Your task to perform on an android device: turn off javascript in the chrome app Image 0: 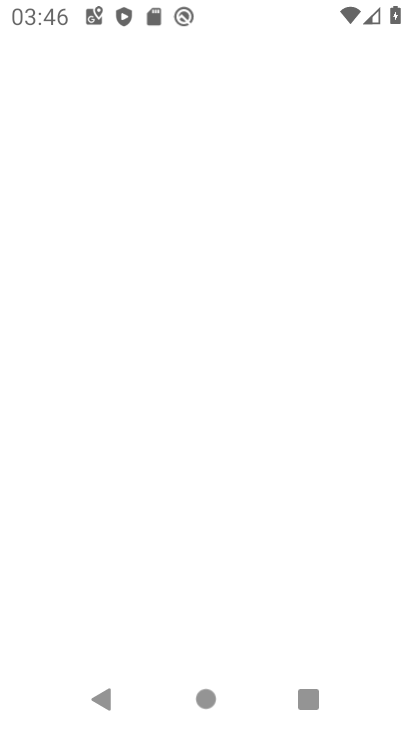
Step 0: drag from (264, 471) to (229, 35)
Your task to perform on an android device: turn off javascript in the chrome app Image 1: 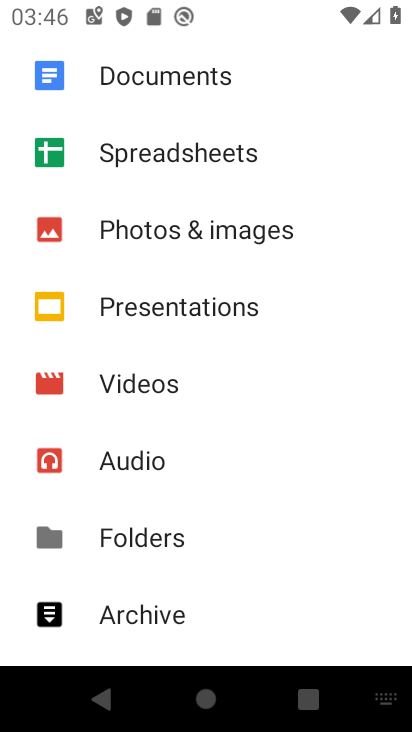
Step 1: press home button
Your task to perform on an android device: turn off javascript in the chrome app Image 2: 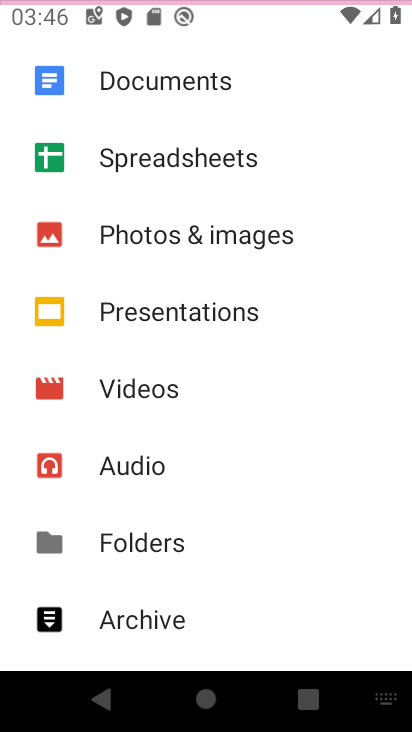
Step 2: drag from (229, 35) to (305, 338)
Your task to perform on an android device: turn off javascript in the chrome app Image 3: 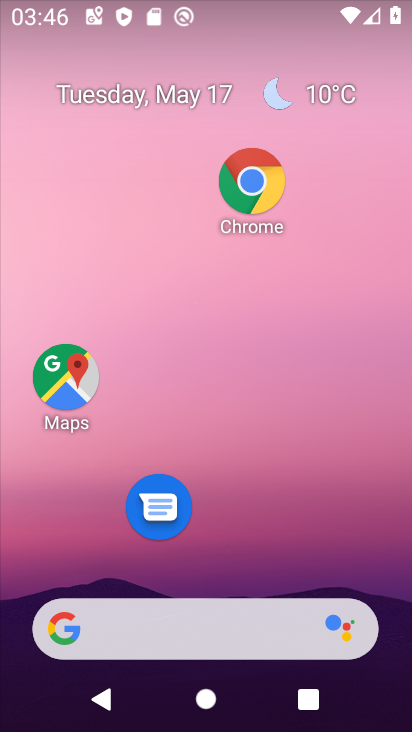
Step 3: drag from (186, 558) to (142, 180)
Your task to perform on an android device: turn off javascript in the chrome app Image 4: 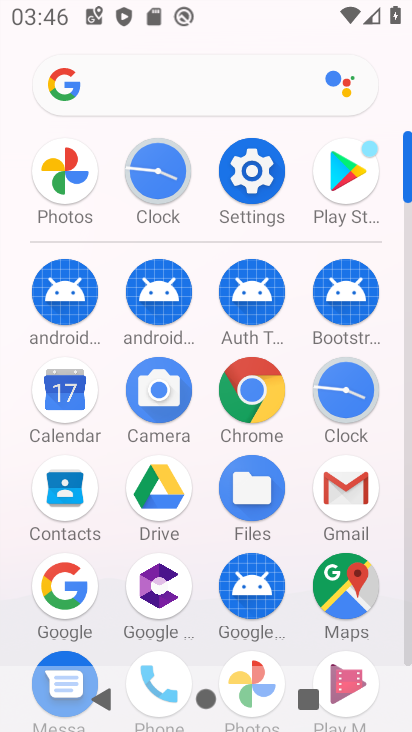
Step 4: click (257, 407)
Your task to perform on an android device: turn off javascript in the chrome app Image 5: 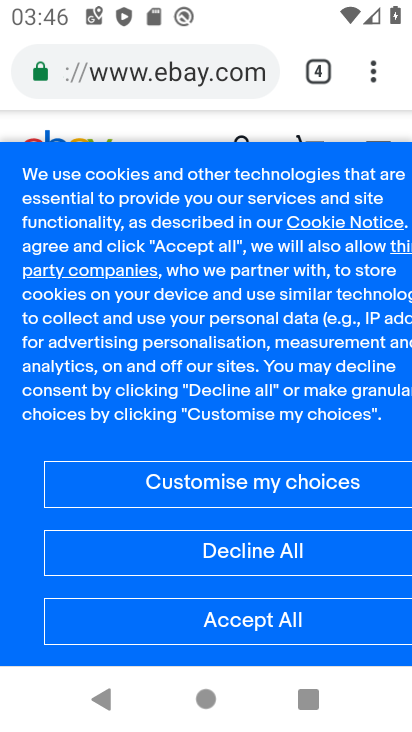
Step 5: click (388, 65)
Your task to perform on an android device: turn off javascript in the chrome app Image 6: 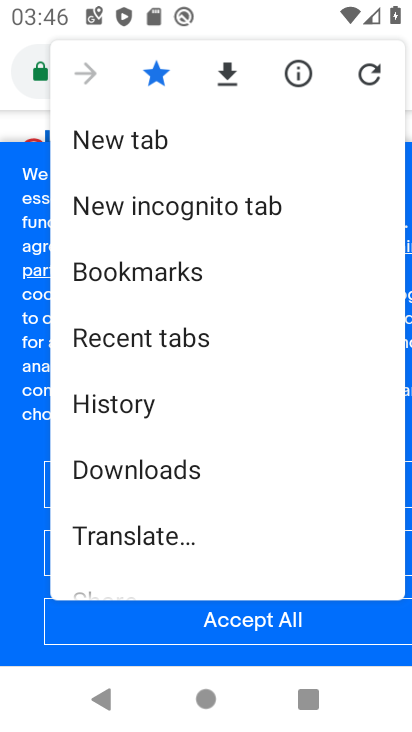
Step 6: drag from (147, 507) to (138, 282)
Your task to perform on an android device: turn off javascript in the chrome app Image 7: 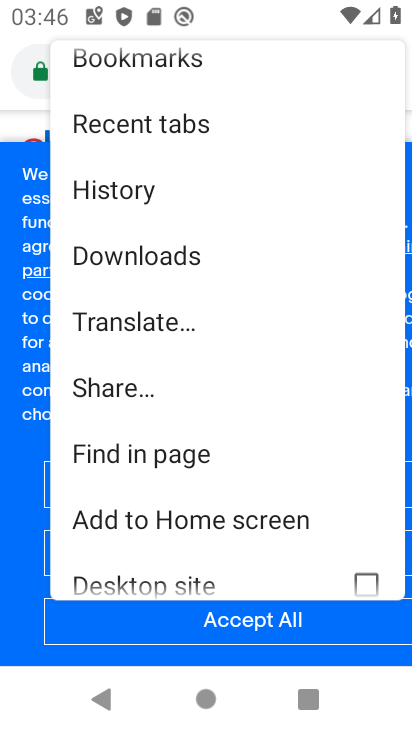
Step 7: drag from (149, 543) to (162, 131)
Your task to perform on an android device: turn off javascript in the chrome app Image 8: 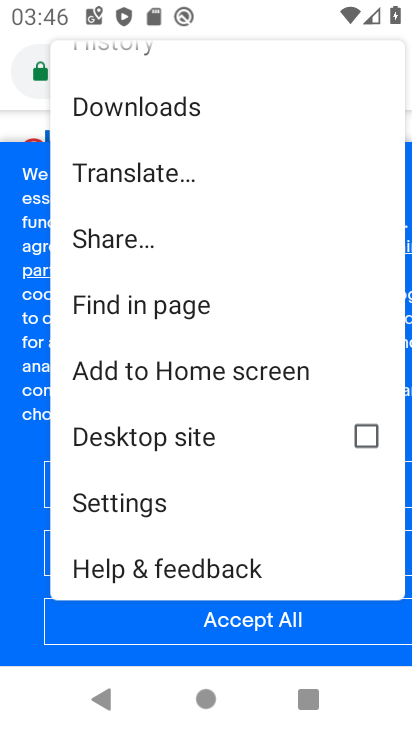
Step 8: click (94, 487)
Your task to perform on an android device: turn off javascript in the chrome app Image 9: 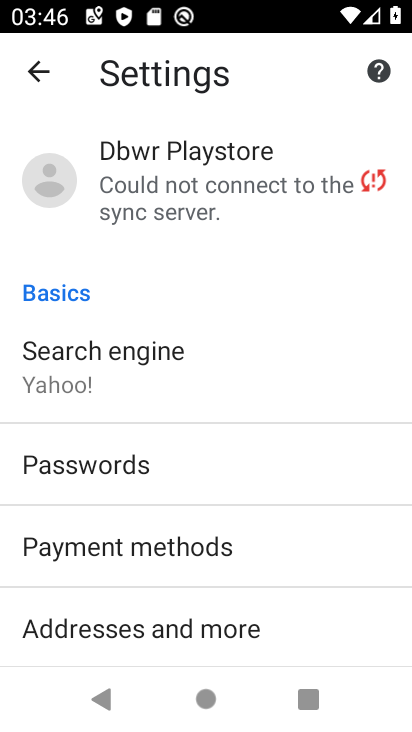
Step 9: drag from (94, 487) to (122, 229)
Your task to perform on an android device: turn off javascript in the chrome app Image 10: 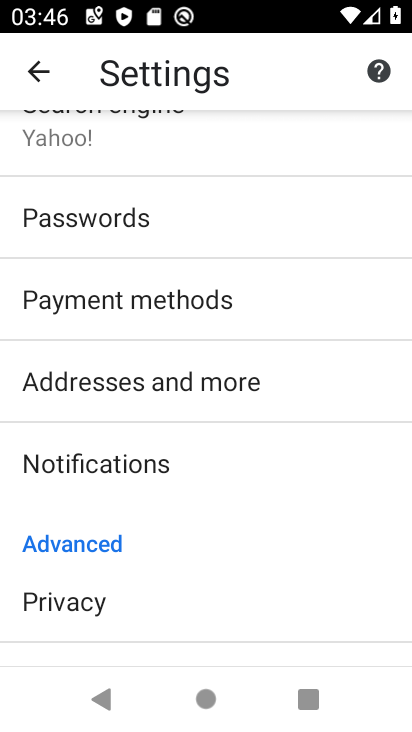
Step 10: drag from (171, 584) to (230, 168)
Your task to perform on an android device: turn off javascript in the chrome app Image 11: 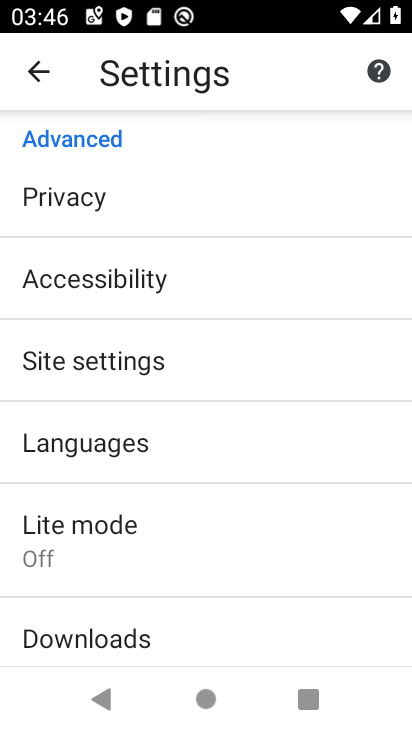
Step 11: click (76, 359)
Your task to perform on an android device: turn off javascript in the chrome app Image 12: 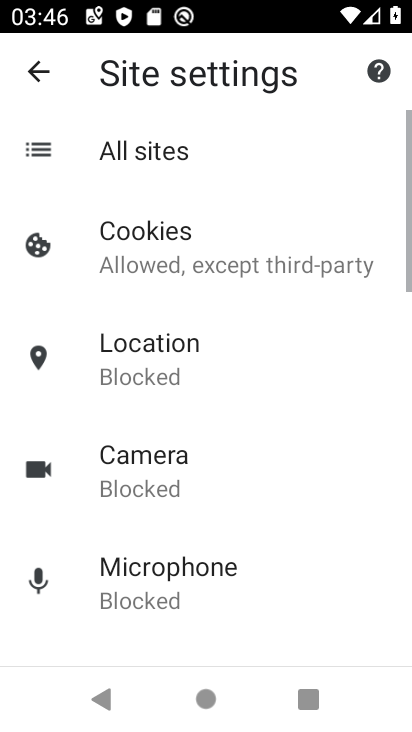
Step 12: drag from (177, 576) to (271, 91)
Your task to perform on an android device: turn off javascript in the chrome app Image 13: 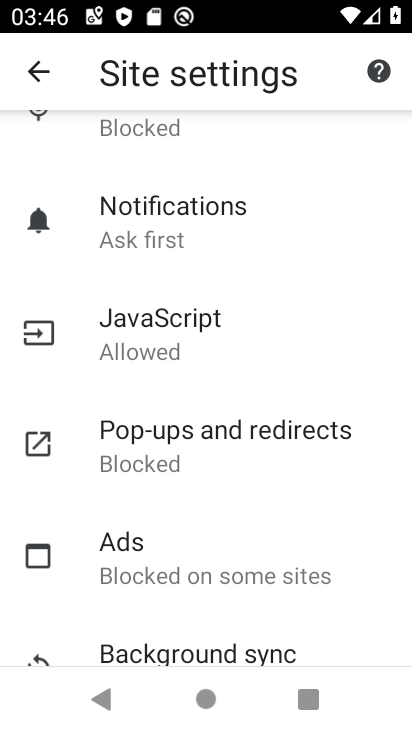
Step 13: click (161, 339)
Your task to perform on an android device: turn off javascript in the chrome app Image 14: 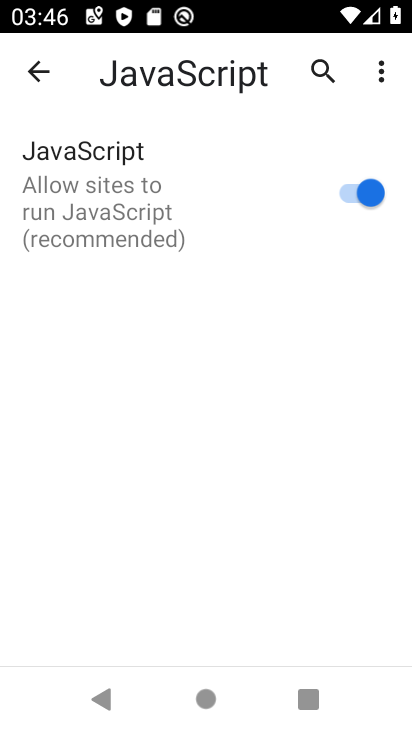
Step 14: click (372, 190)
Your task to perform on an android device: turn off javascript in the chrome app Image 15: 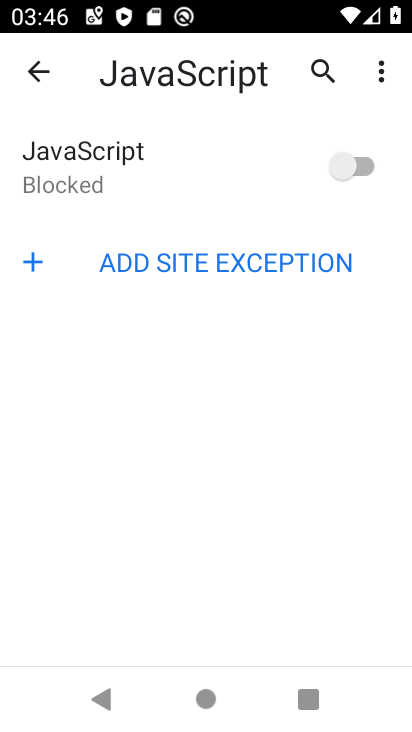
Step 15: task complete